Your task to perform on an android device: Find coffee shops on Maps Image 0: 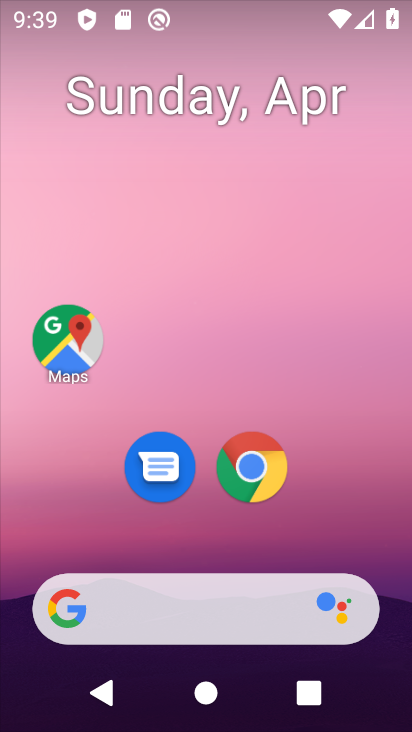
Step 0: click (190, 624)
Your task to perform on an android device: Find coffee shops on Maps Image 1: 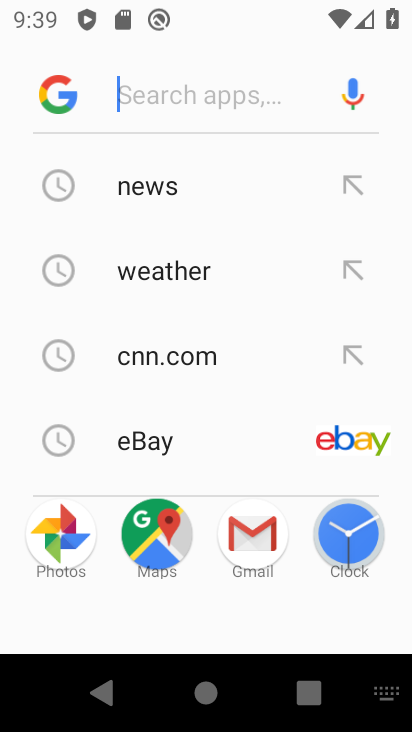
Step 1: type "coffee shop"
Your task to perform on an android device: Find coffee shops on Maps Image 2: 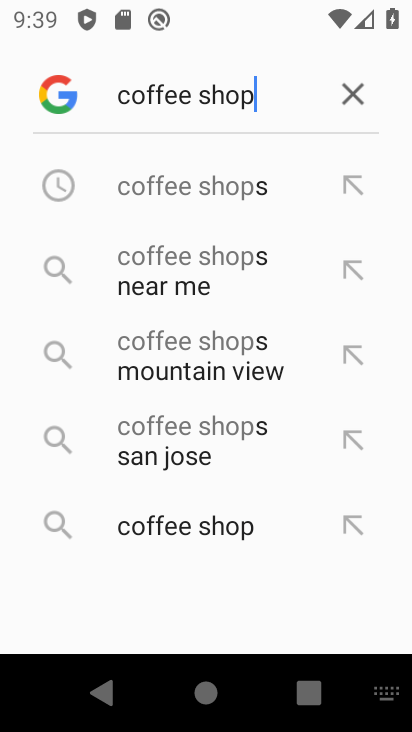
Step 2: click (183, 176)
Your task to perform on an android device: Find coffee shops on Maps Image 3: 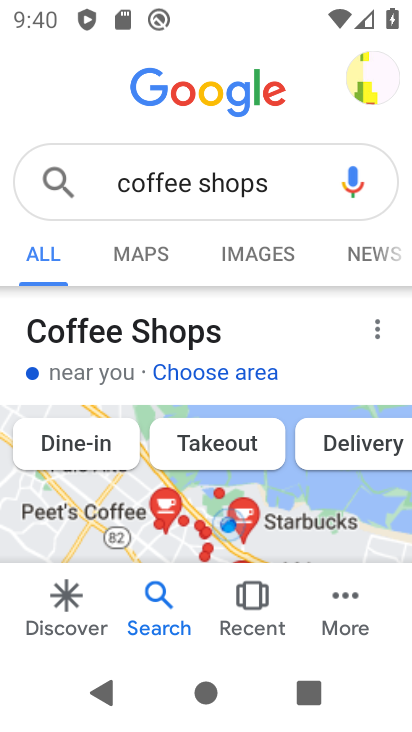
Step 3: task complete